Your task to perform on an android device: change notifications settings Image 0: 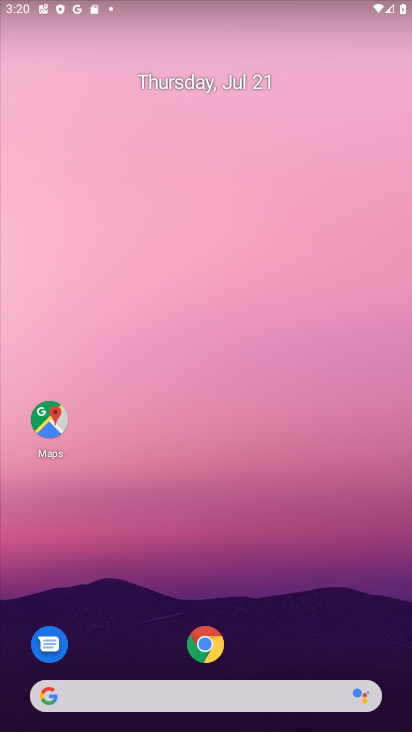
Step 0: press home button
Your task to perform on an android device: change notifications settings Image 1: 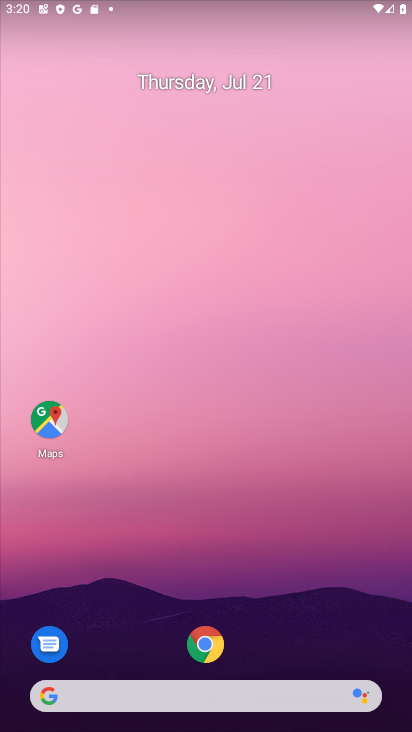
Step 1: drag from (292, 646) to (267, 87)
Your task to perform on an android device: change notifications settings Image 2: 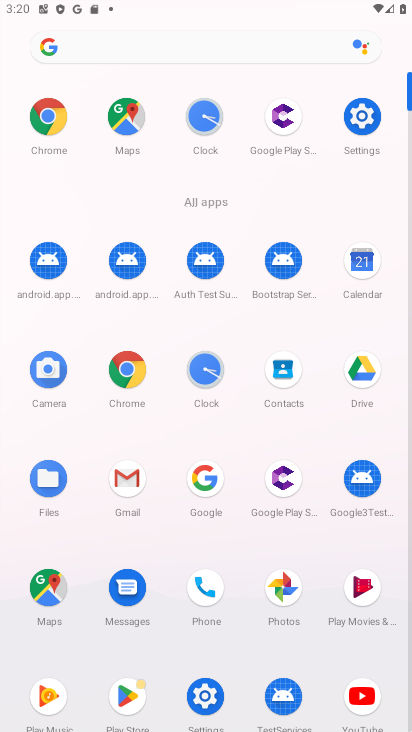
Step 2: click (358, 120)
Your task to perform on an android device: change notifications settings Image 3: 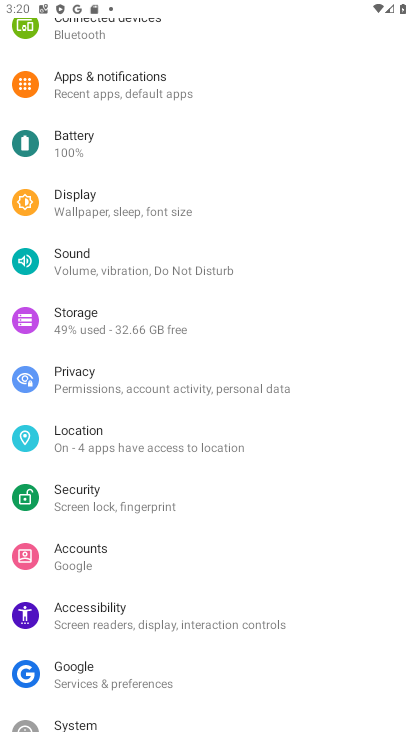
Step 3: click (121, 87)
Your task to perform on an android device: change notifications settings Image 4: 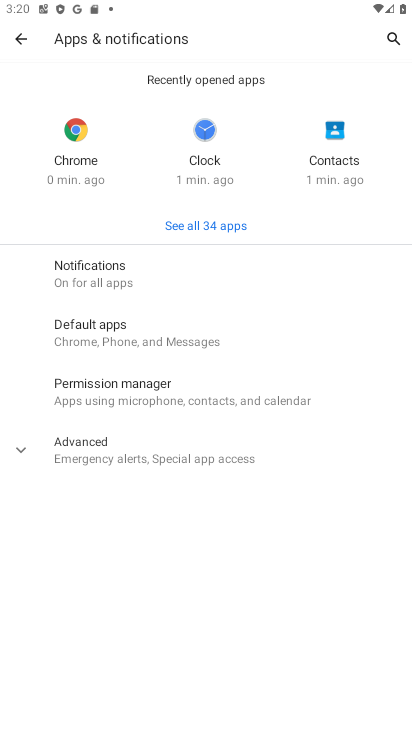
Step 4: click (100, 259)
Your task to perform on an android device: change notifications settings Image 5: 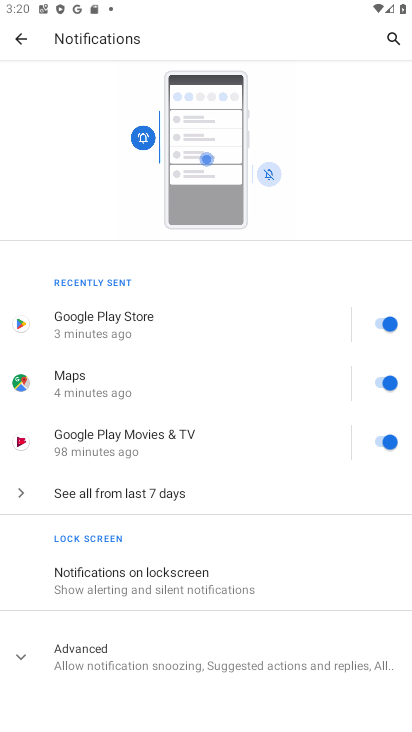
Step 5: task complete